Your task to perform on an android device: Go to Maps Image 0: 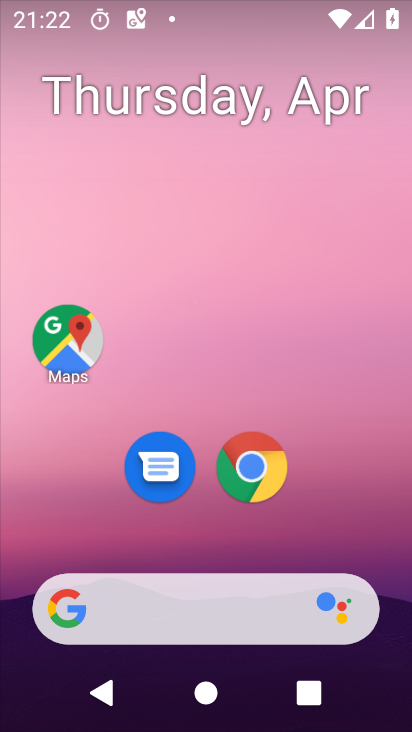
Step 0: drag from (199, 561) to (225, 47)
Your task to perform on an android device: Go to Maps Image 1: 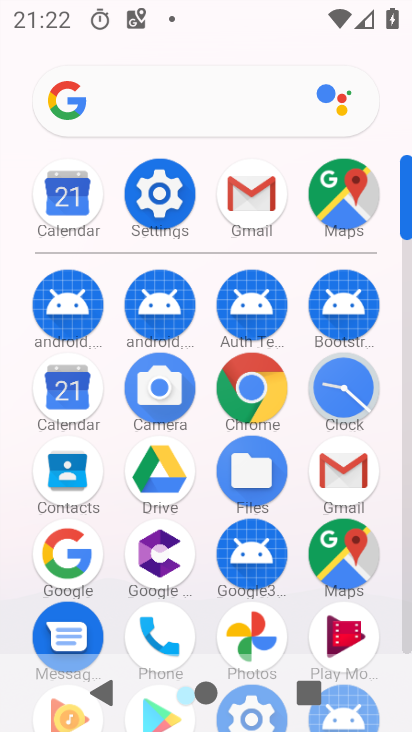
Step 1: click (352, 176)
Your task to perform on an android device: Go to Maps Image 2: 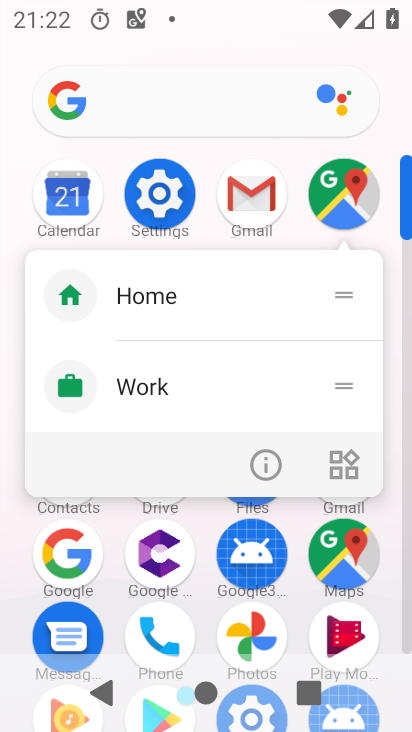
Step 2: click (352, 176)
Your task to perform on an android device: Go to Maps Image 3: 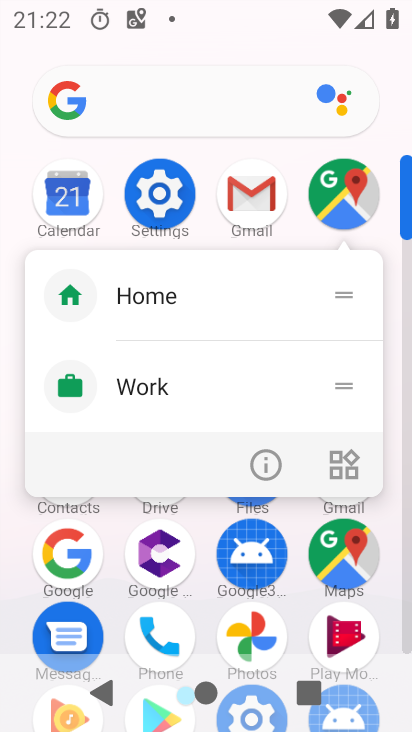
Step 3: click (344, 192)
Your task to perform on an android device: Go to Maps Image 4: 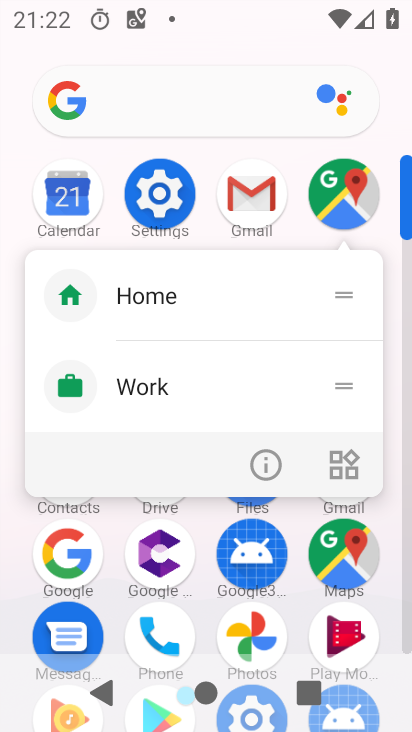
Step 4: click (344, 223)
Your task to perform on an android device: Go to Maps Image 5: 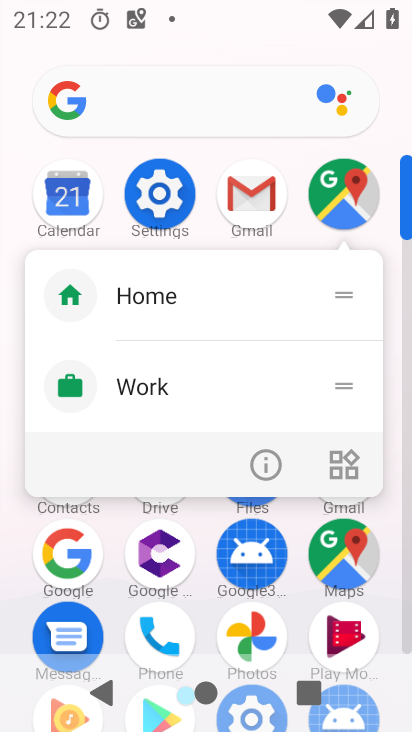
Step 5: click (351, 179)
Your task to perform on an android device: Go to Maps Image 6: 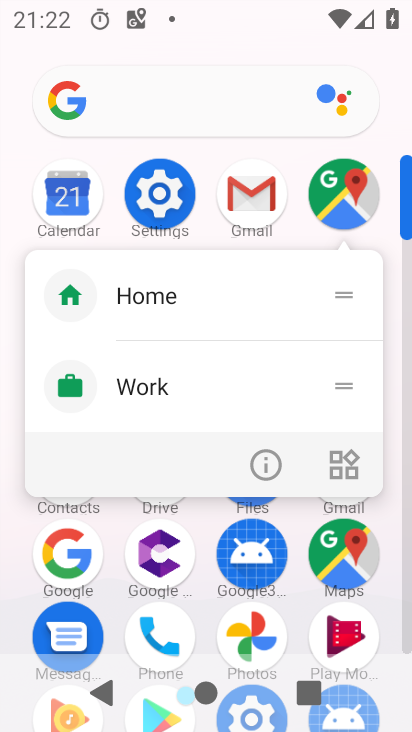
Step 6: click (348, 151)
Your task to perform on an android device: Go to Maps Image 7: 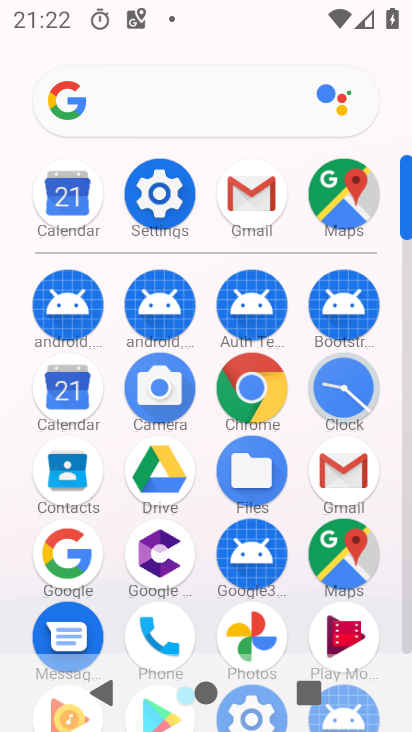
Step 7: click (345, 169)
Your task to perform on an android device: Go to Maps Image 8: 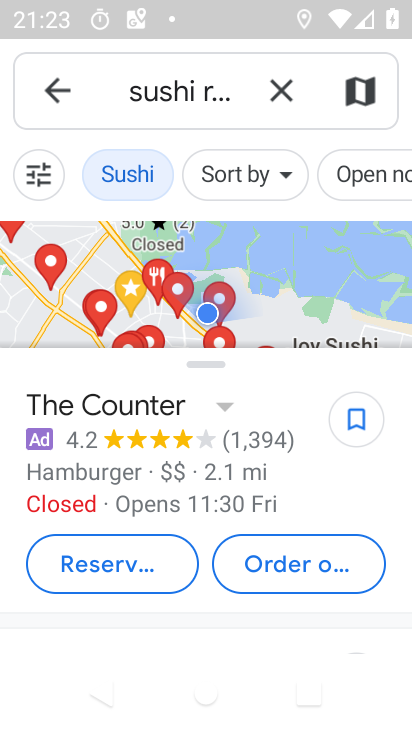
Step 8: task complete